Your task to perform on an android device: Go to eBay Image 0: 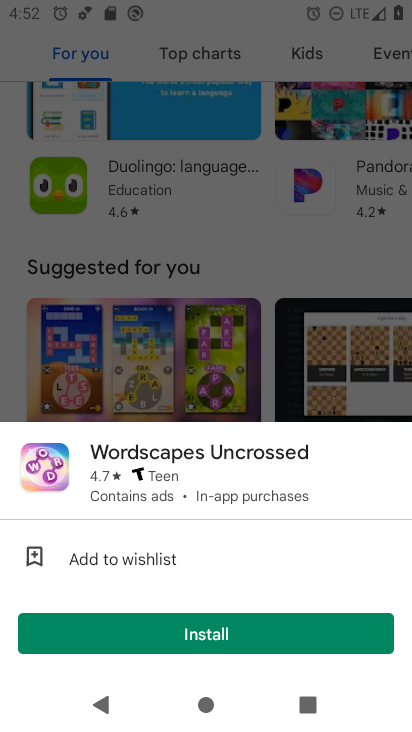
Step 0: press home button
Your task to perform on an android device: Go to eBay Image 1: 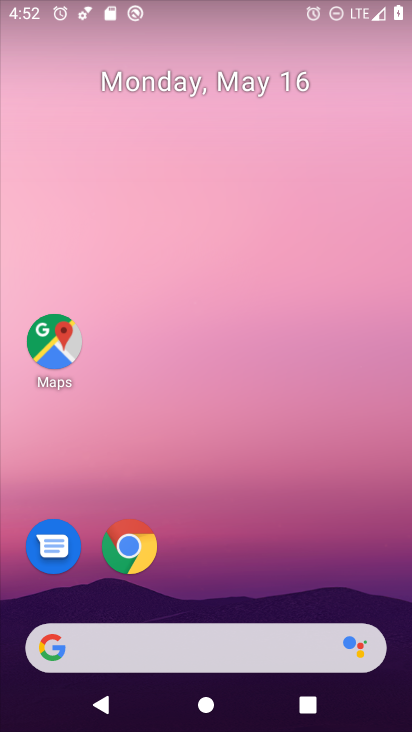
Step 1: drag from (336, 558) to (344, 190)
Your task to perform on an android device: Go to eBay Image 2: 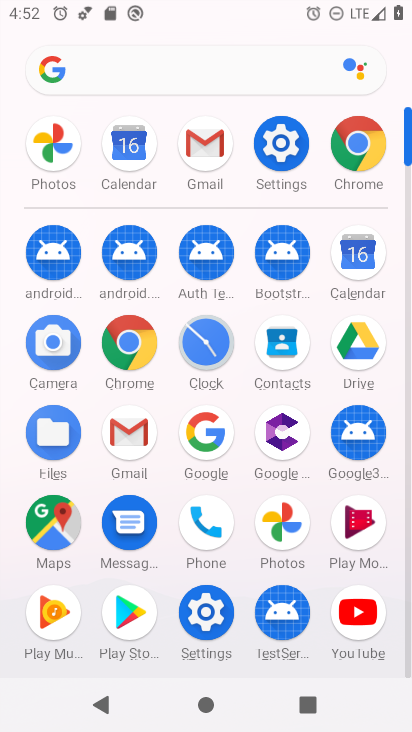
Step 2: click (151, 345)
Your task to perform on an android device: Go to eBay Image 3: 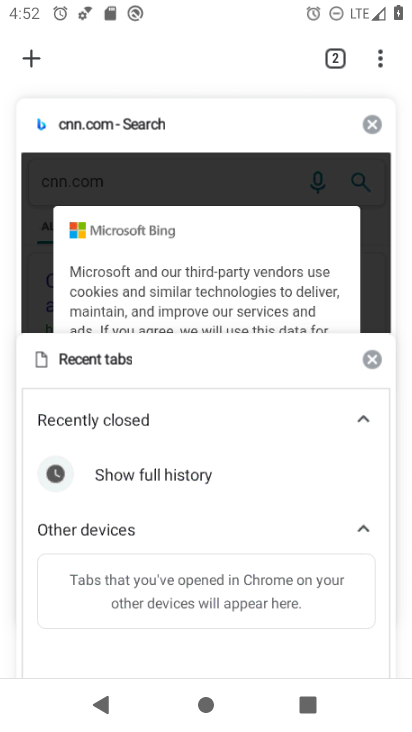
Step 3: press back button
Your task to perform on an android device: Go to eBay Image 4: 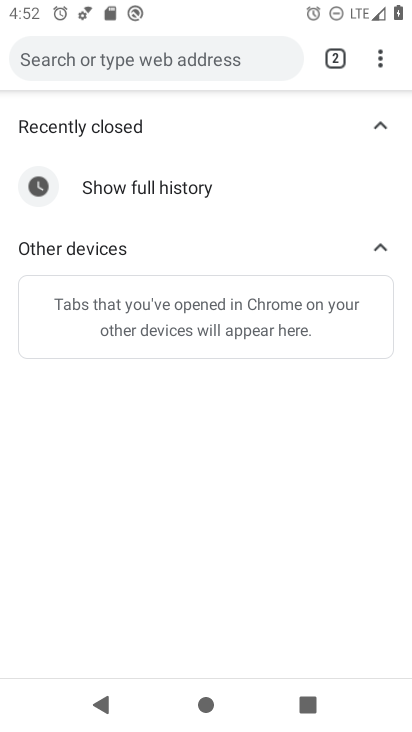
Step 4: click (204, 60)
Your task to perform on an android device: Go to eBay Image 5: 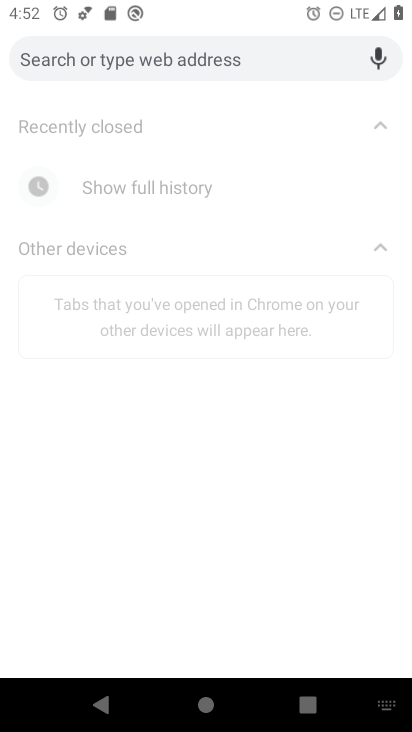
Step 5: type "ebay"
Your task to perform on an android device: Go to eBay Image 6: 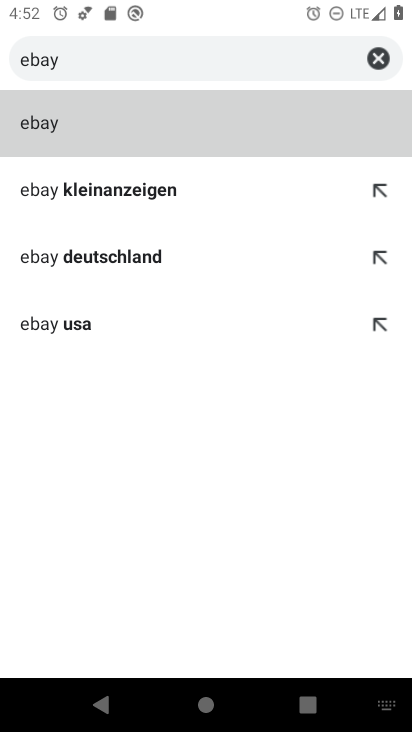
Step 6: click (191, 137)
Your task to perform on an android device: Go to eBay Image 7: 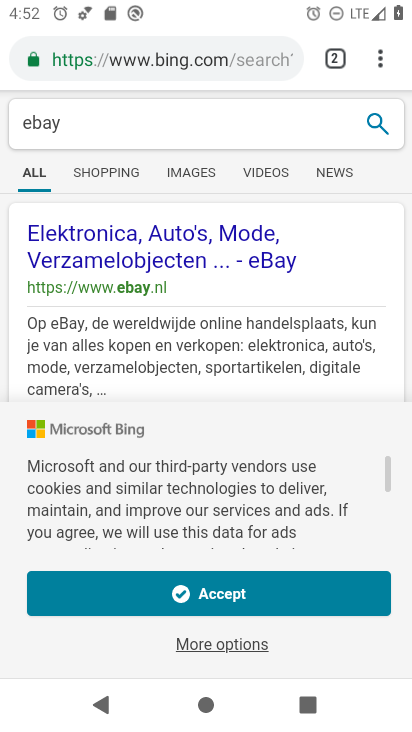
Step 7: click (196, 235)
Your task to perform on an android device: Go to eBay Image 8: 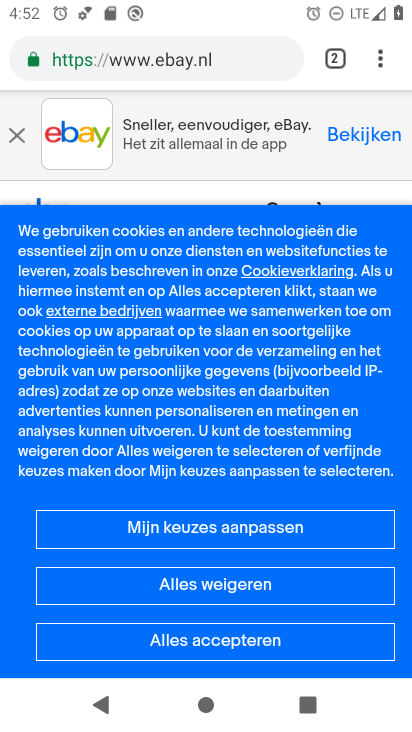
Step 8: task complete